Your task to perform on an android device: toggle pop-ups in chrome Image 0: 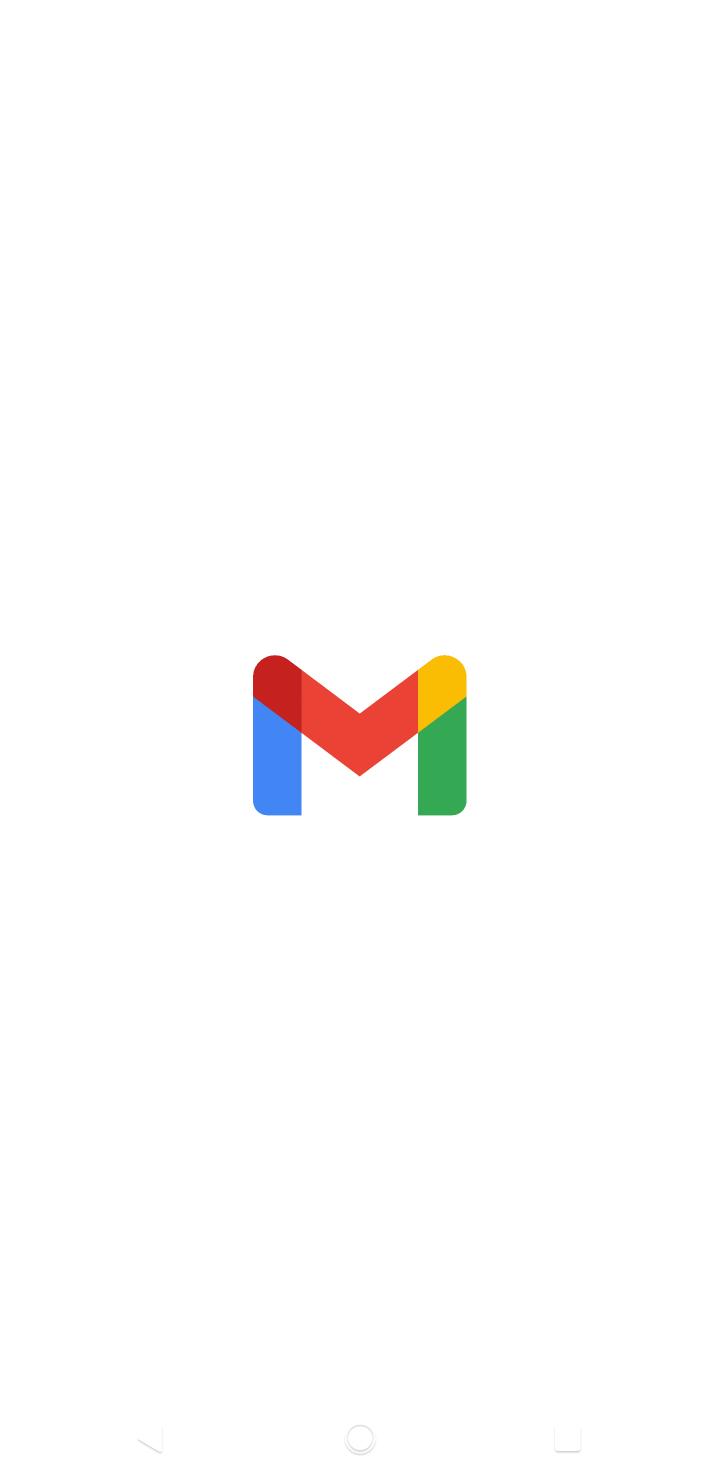
Step 0: press home button
Your task to perform on an android device: toggle pop-ups in chrome Image 1: 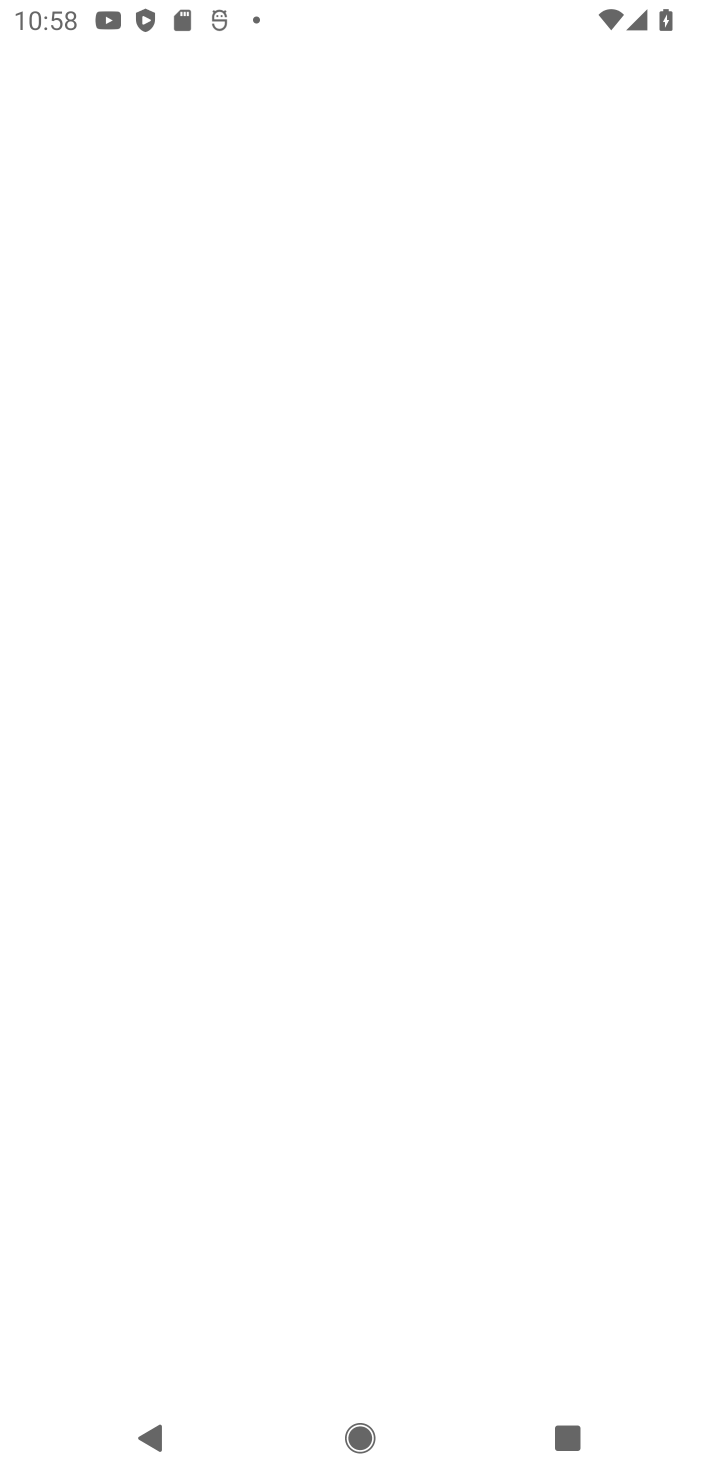
Step 1: press home button
Your task to perform on an android device: toggle pop-ups in chrome Image 2: 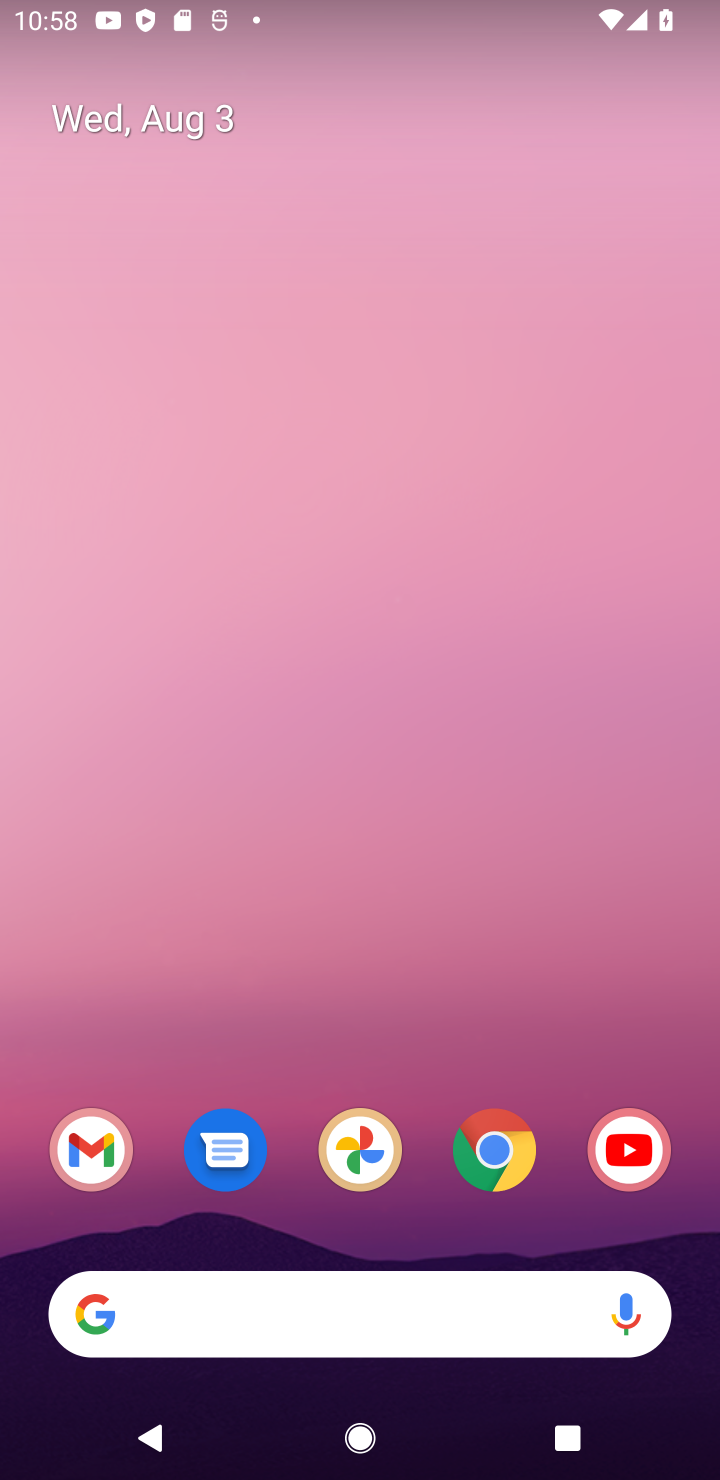
Step 2: drag from (570, 1008) to (581, 424)
Your task to perform on an android device: toggle pop-ups in chrome Image 3: 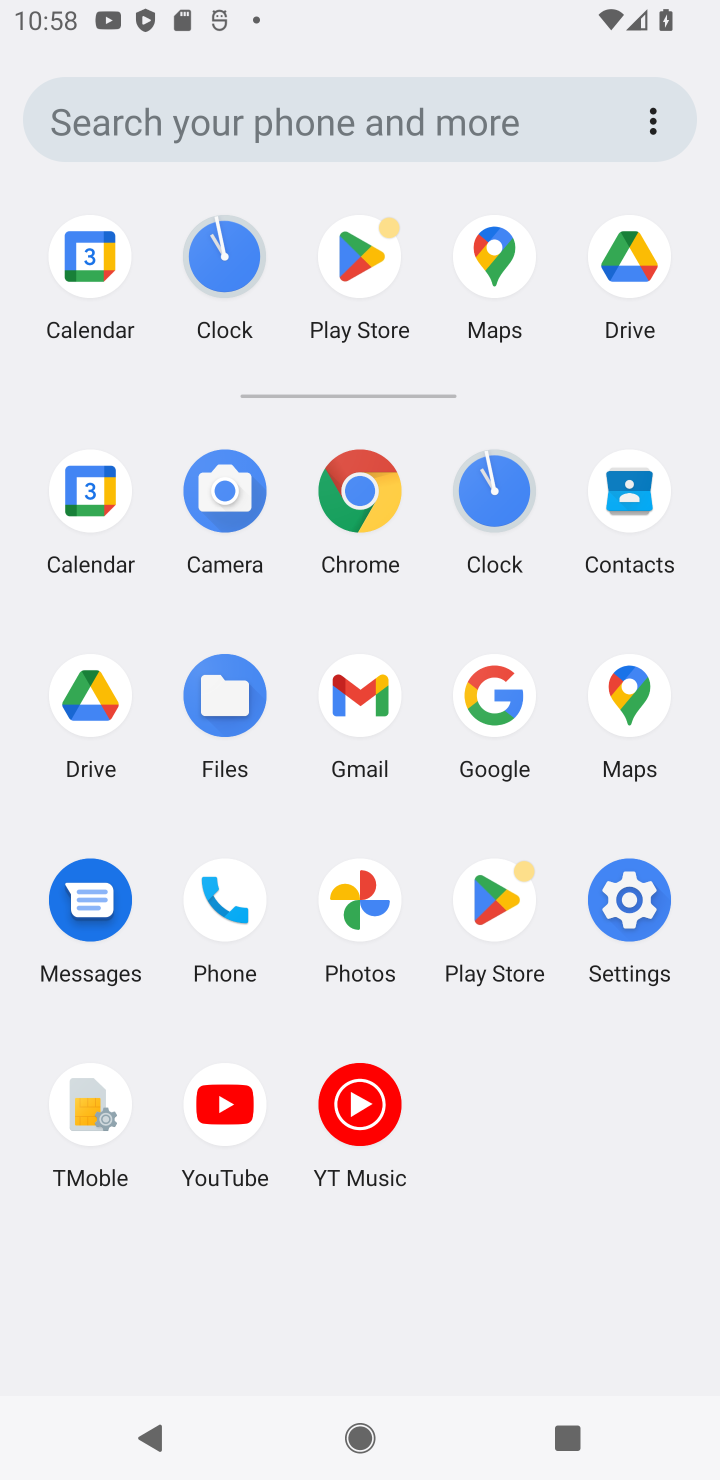
Step 3: click (364, 509)
Your task to perform on an android device: toggle pop-ups in chrome Image 4: 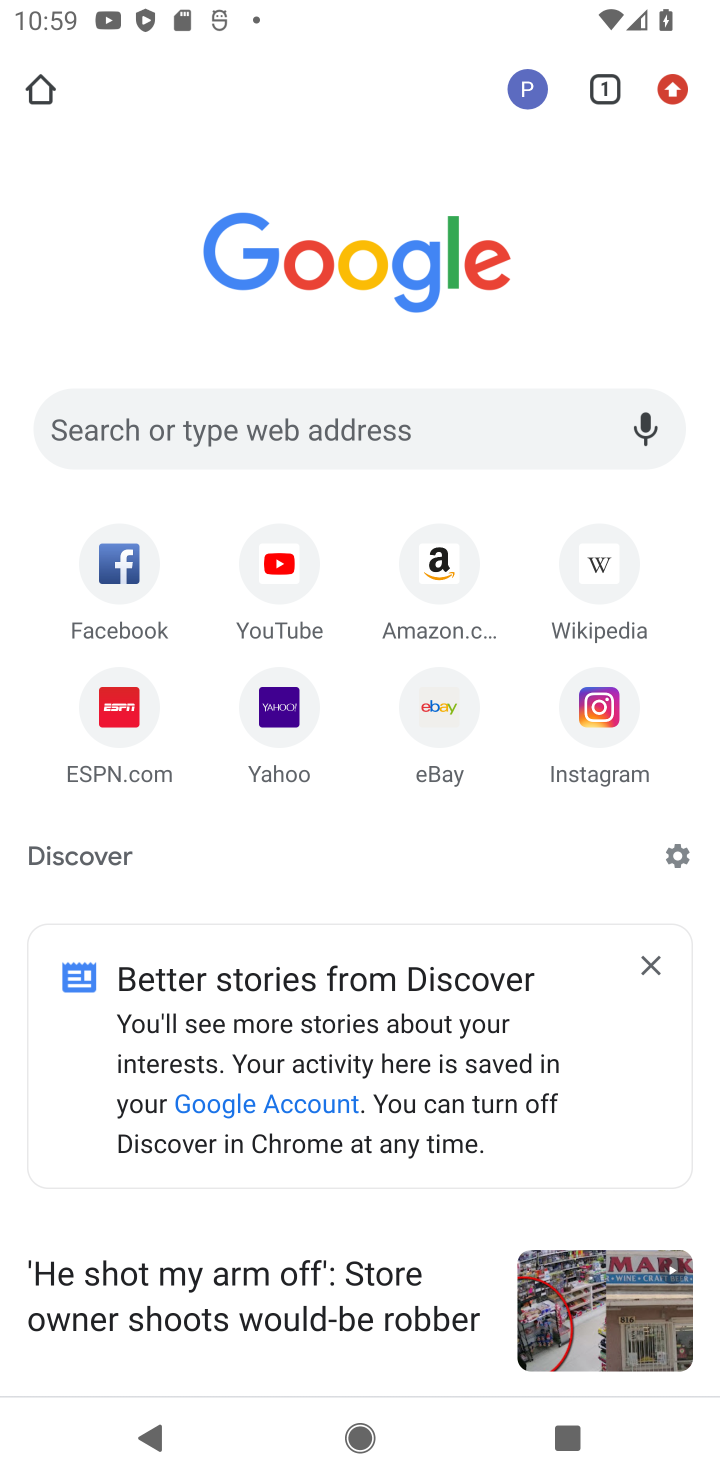
Step 4: click (668, 92)
Your task to perform on an android device: toggle pop-ups in chrome Image 5: 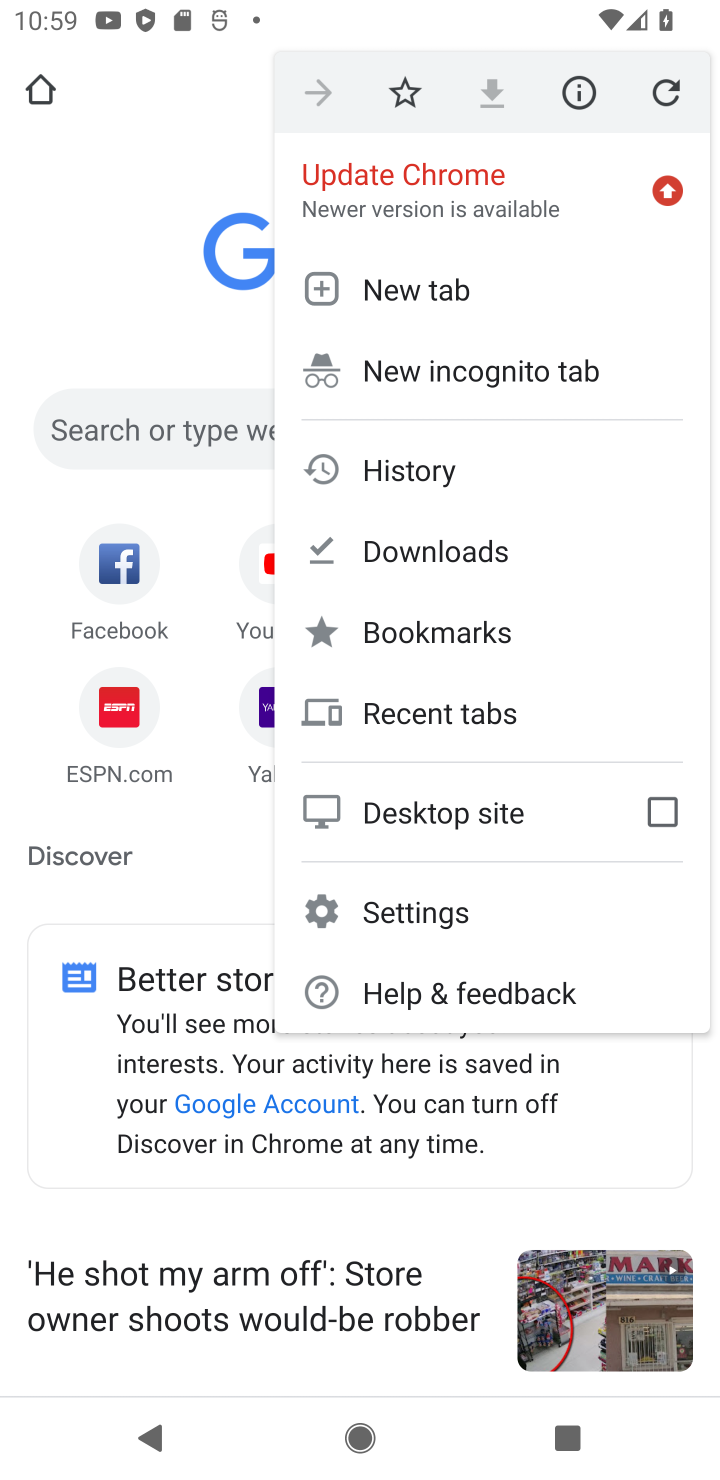
Step 5: click (466, 912)
Your task to perform on an android device: toggle pop-ups in chrome Image 6: 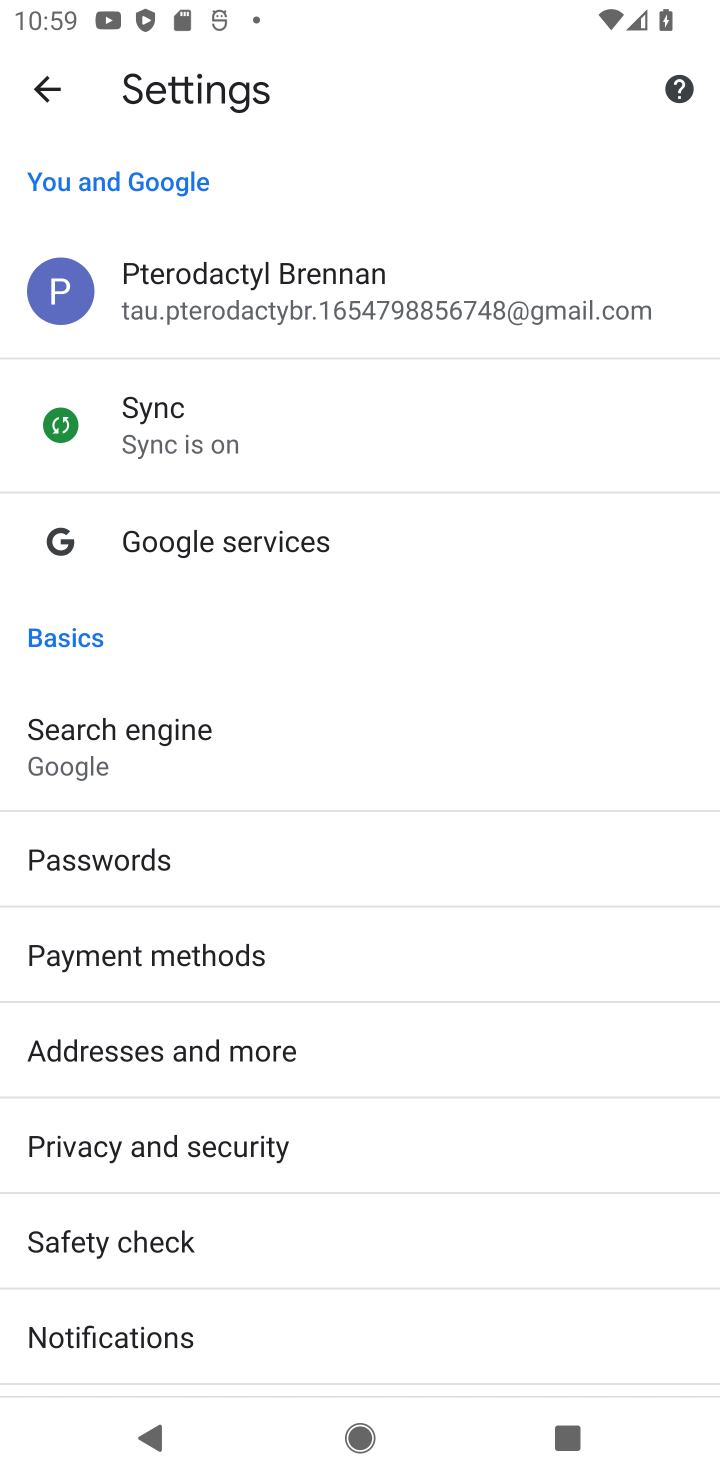
Step 6: drag from (531, 991) to (546, 706)
Your task to perform on an android device: toggle pop-ups in chrome Image 7: 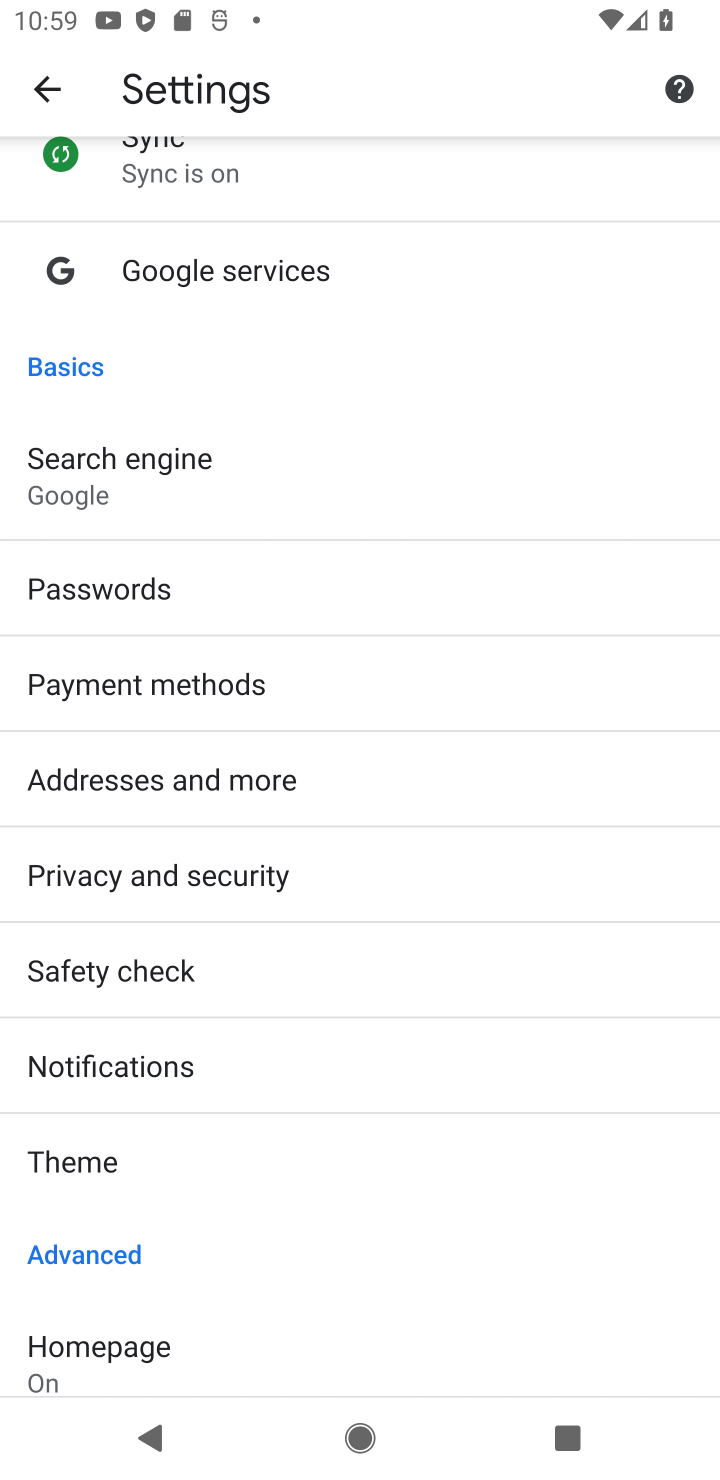
Step 7: drag from (549, 1040) to (534, 713)
Your task to perform on an android device: toggle pop-ups in chrome Image 8: 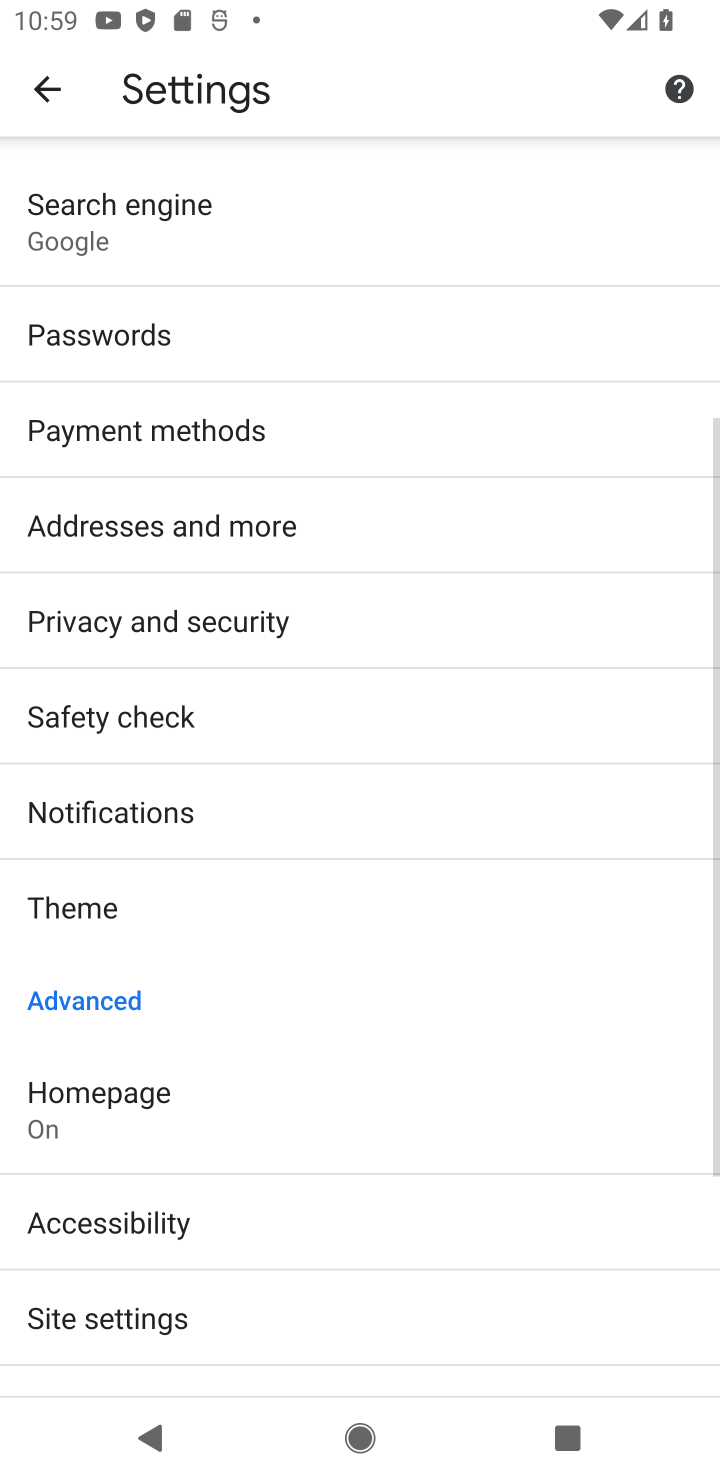
Step 8: drag from (550, 1014) to (535, 738)
Your task to perform on an android device: toggle pop-ups in chrome Image 9: 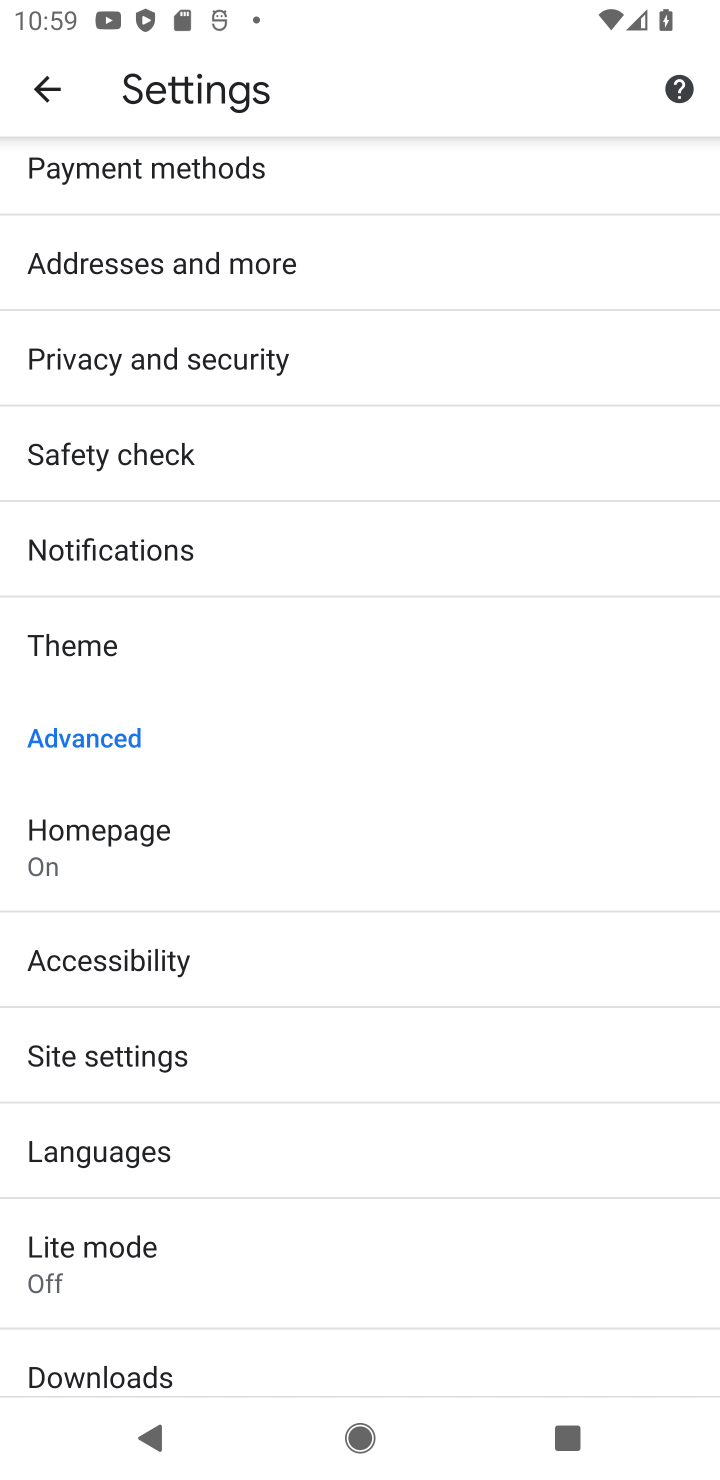
Step 9: drag from (533, 1010) to (521, 715)
Your task to perform on an android device: toggle pop-ups in chrome Image 10: 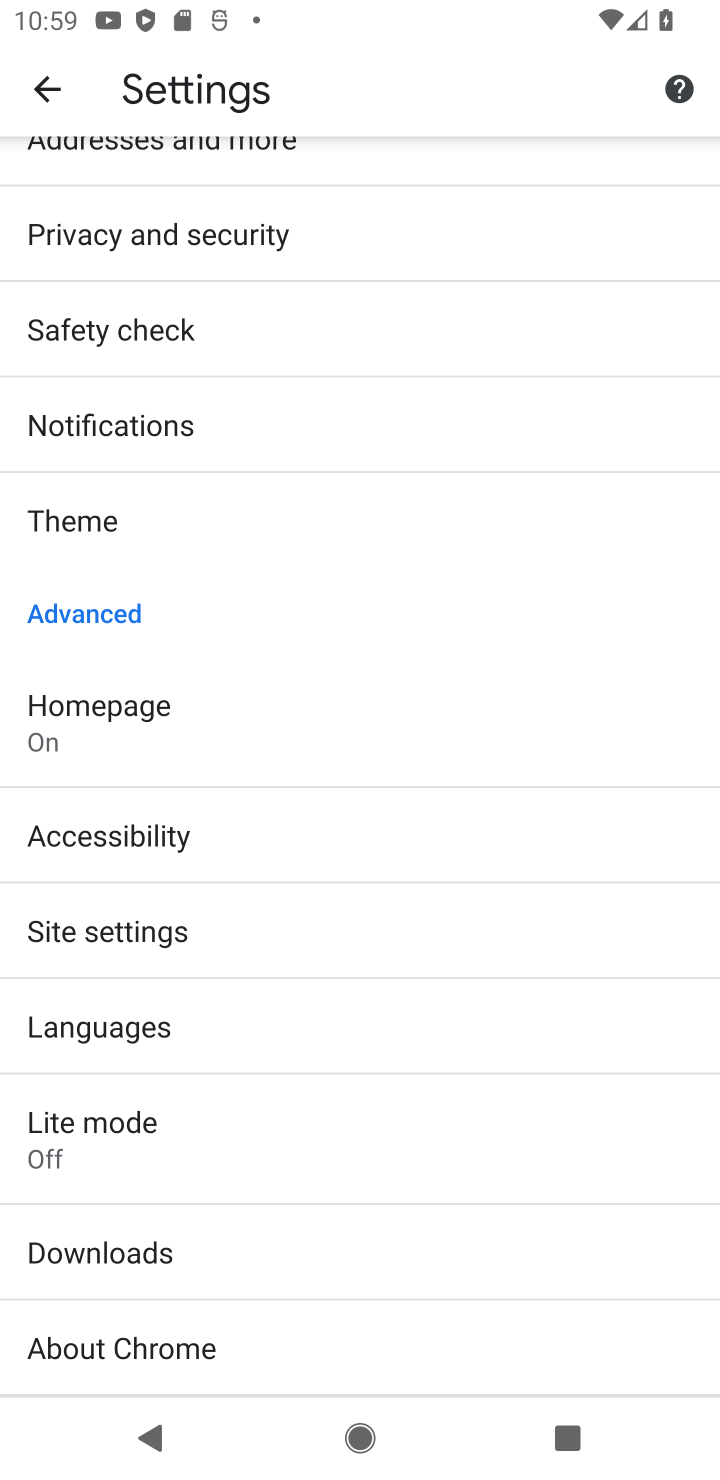
Step 10: click (521, 939)
Your task to perform on an android device: toggle pop-ups in chrome Image 11: 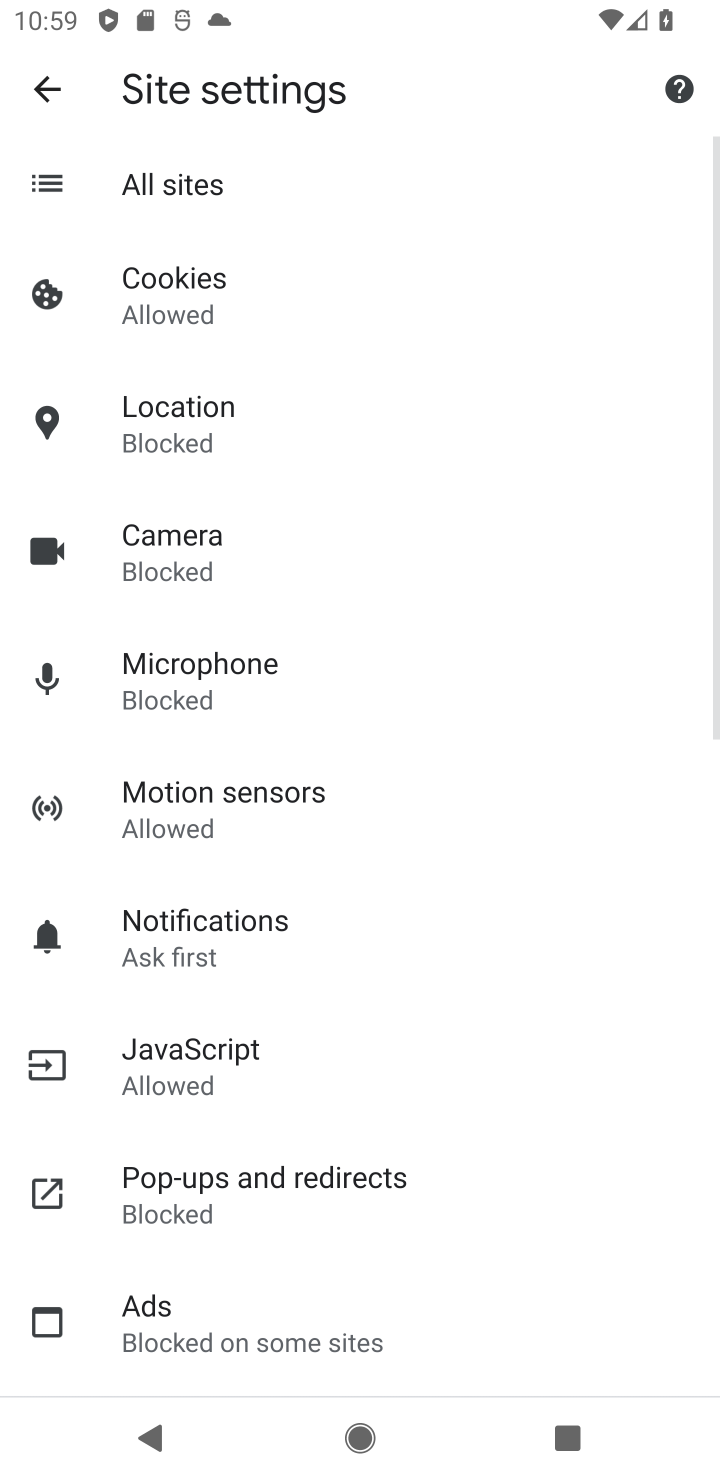
Step 11: drag from (554, 1027) to (562, 790)
Your task to perform on an android device: toggle pop-ups in chrome Image 12: 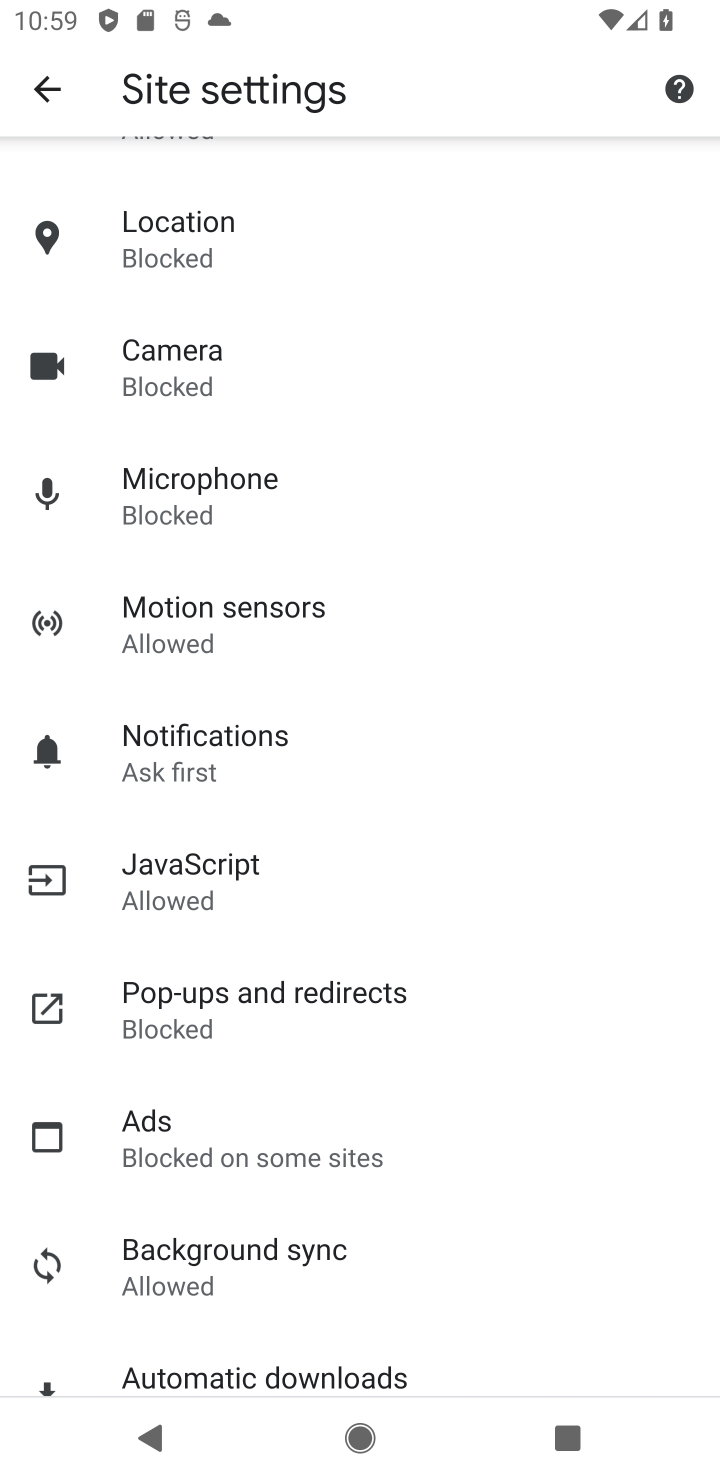
Step 12: drag from (560, 956) to (556, 766)
Your task to perform on an android device: toggle pop-ups in chrome Image 13: 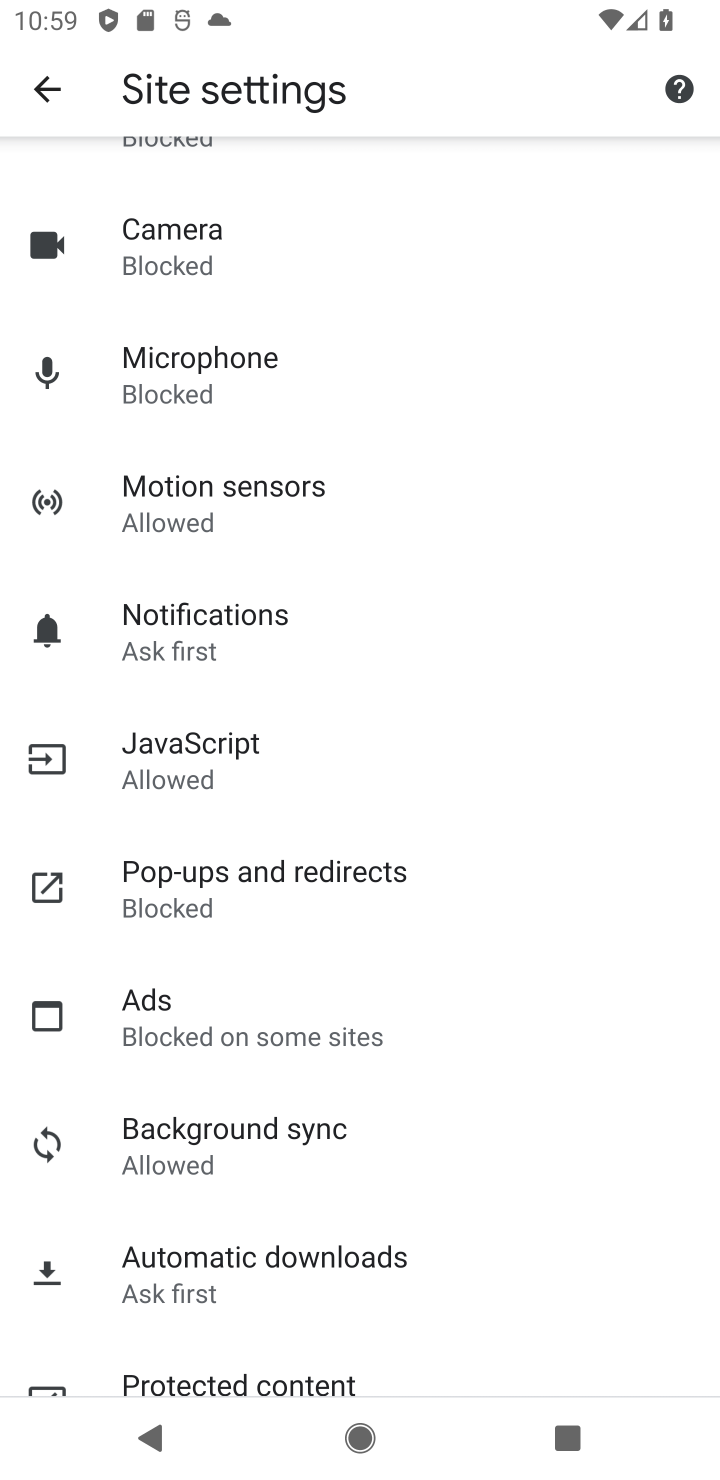
Step 13: drag from (579, 999) to (573, 778)
Your task to perform on an android device: toggle pop-ups in chrome Image 14: 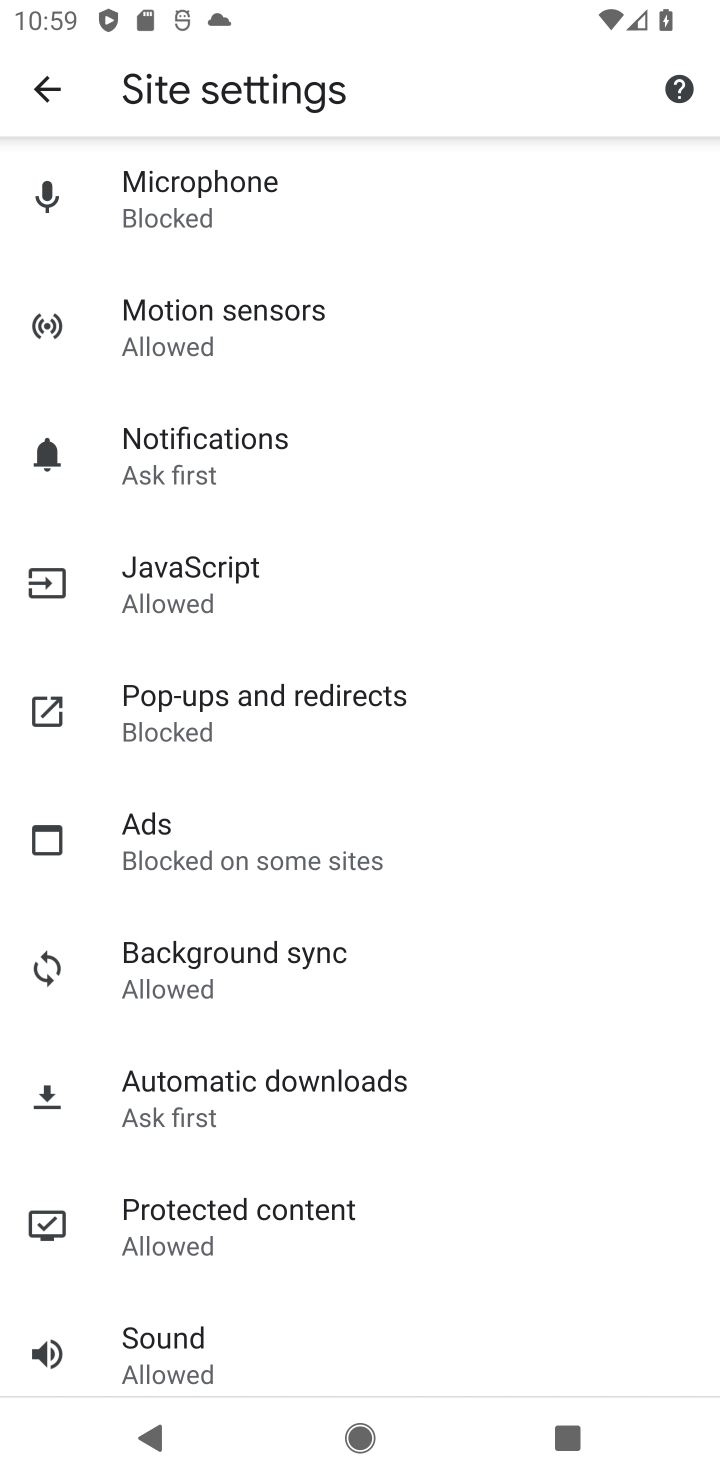
Step 14: drag from (575, 1035) to (577, 776)
Your task to perform on an android device: toggle pop-ups in chrome Image 15: 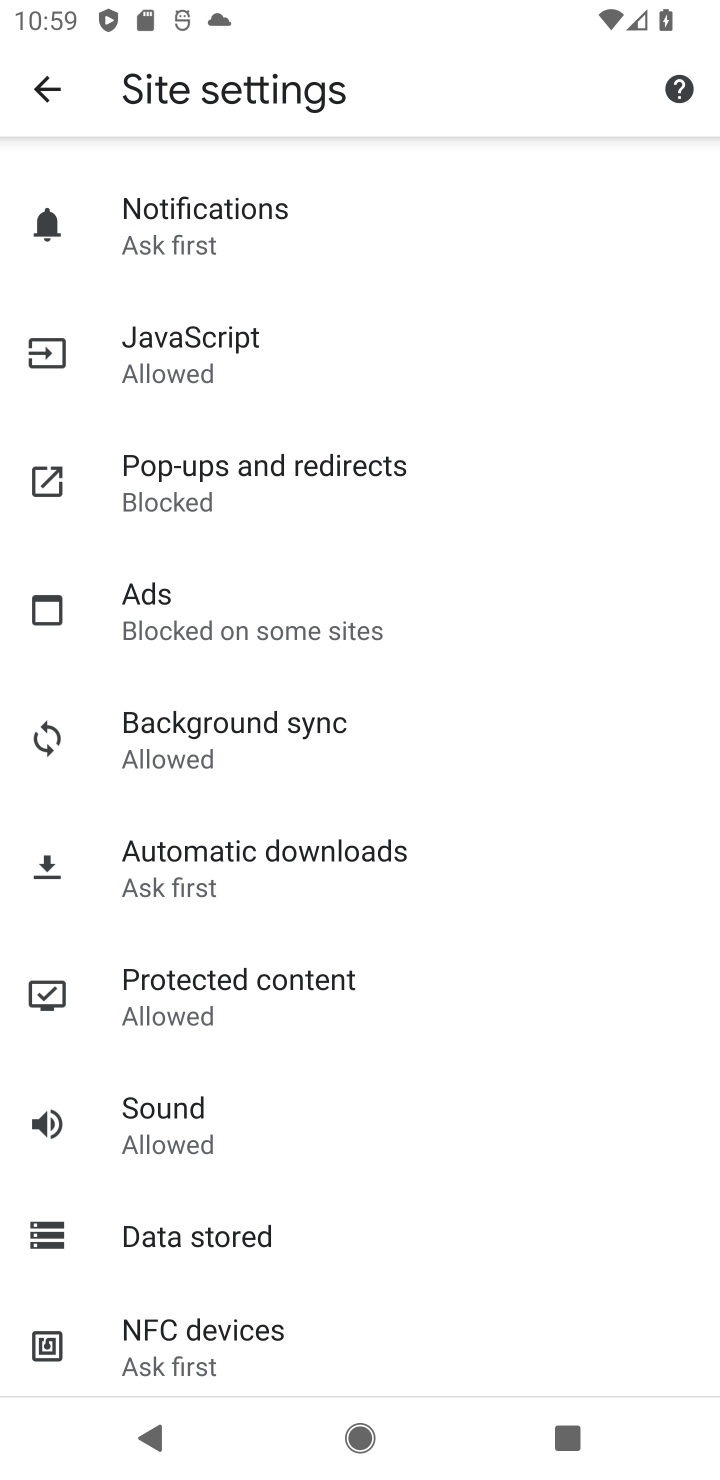
Step 15: drag from (575, 1149) to (570, 850)
Your task to perform on an android device: toggle pop-ups in chrome Image 16: 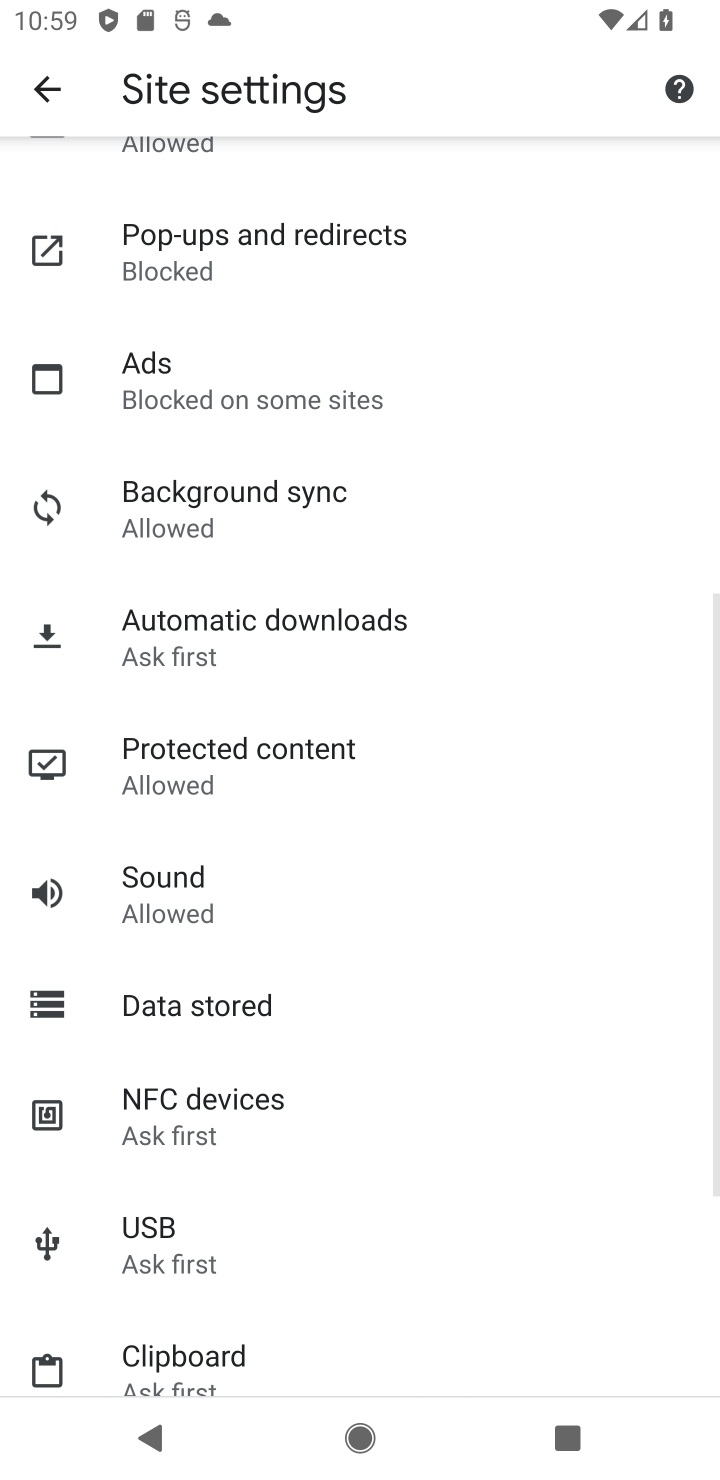
Step 16: drag from (609, 526) to (604, 765)
Your task to perform on an android device: toggle pop-ups in chrome Image 17: 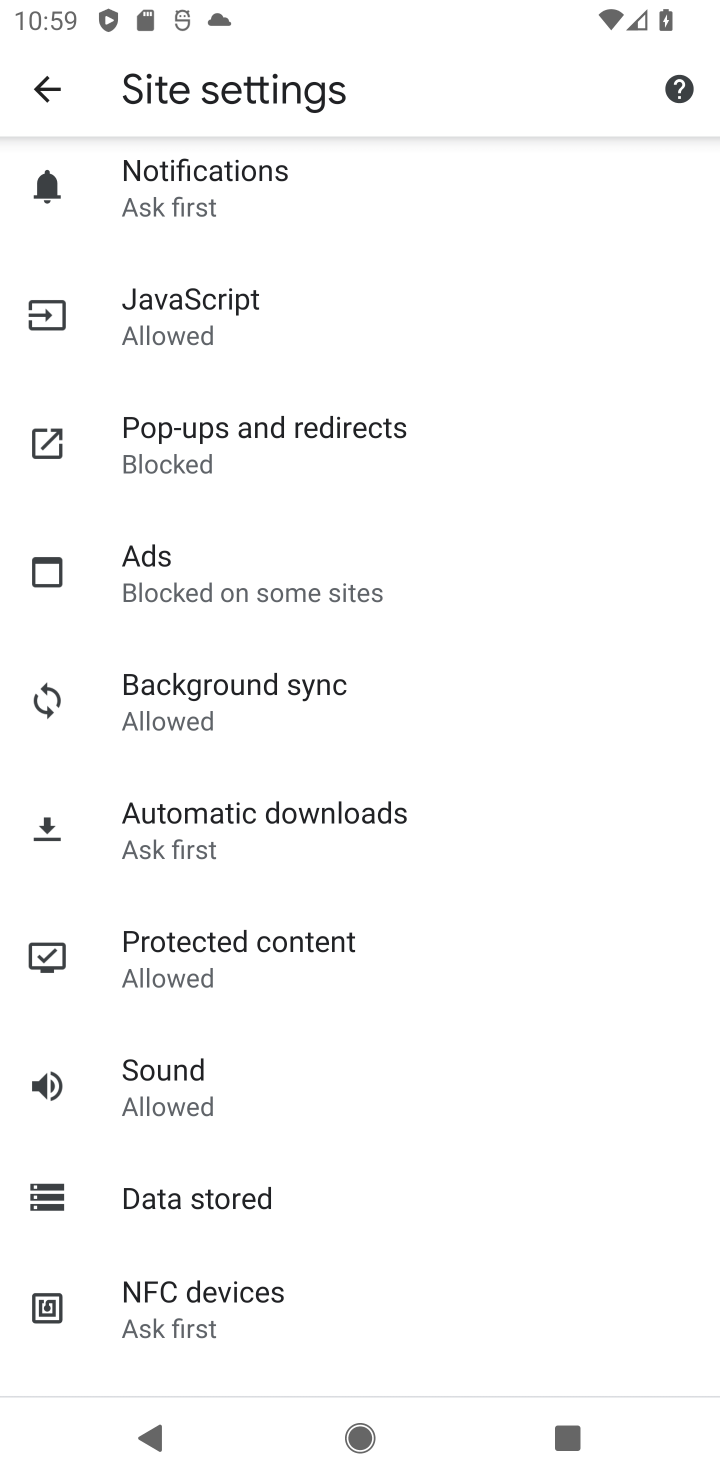
Step 17: drag from (539, 403) to (539, 785)
Your task to perform on an android device: toggle pop-ups in chrome Image 18: 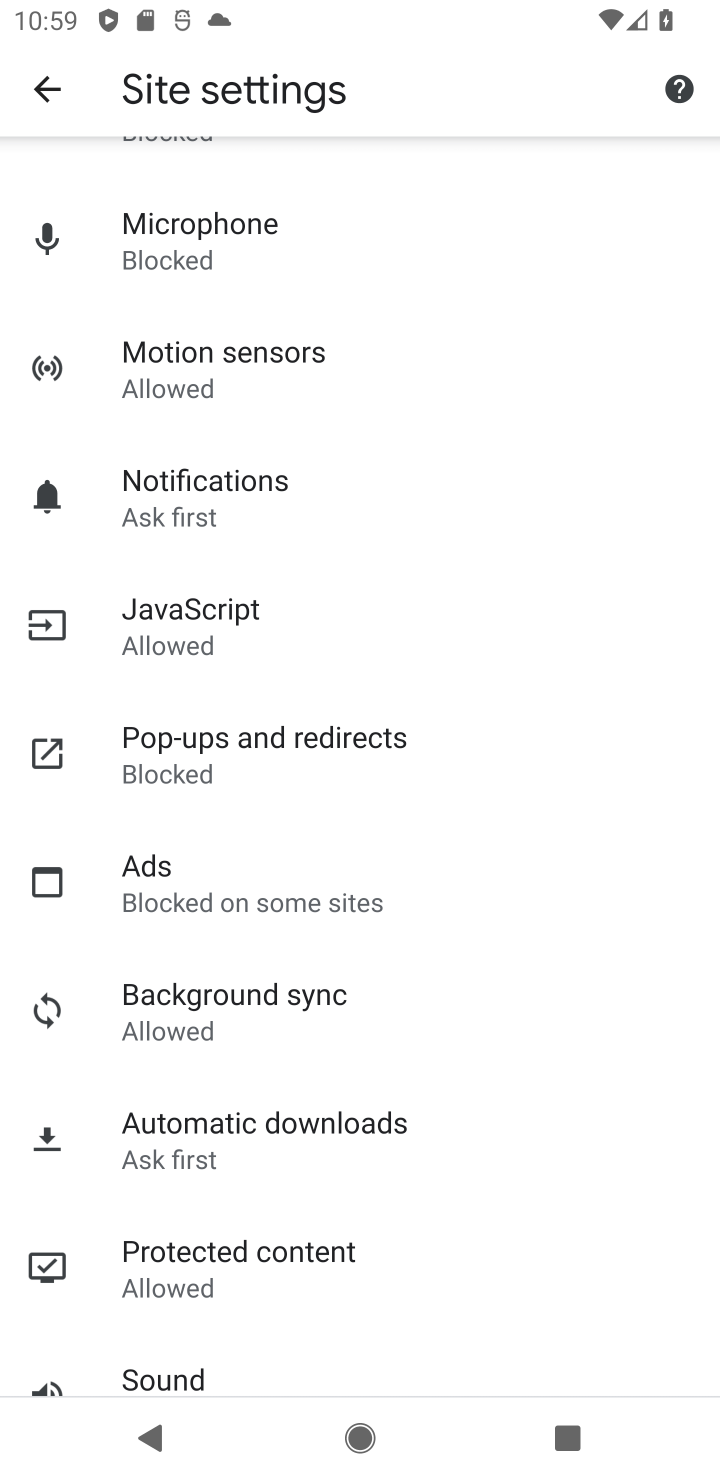
Step 18: click (519, 757)
Your task to perform on an android device: toggle pop-ups in chrome Image 19: 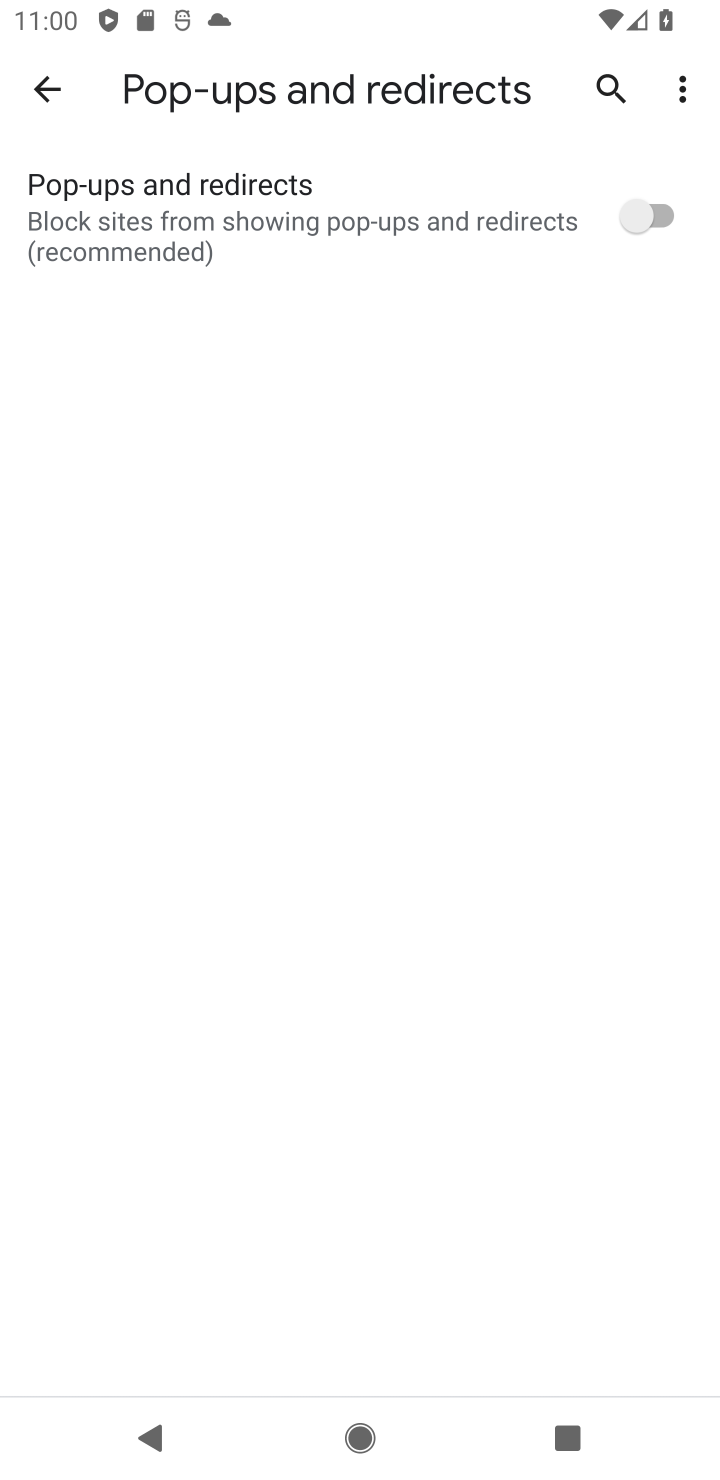
Step 19: click (641, 212)
Your task to perform on an android device: toggle pop-ups in chrome Image 20: 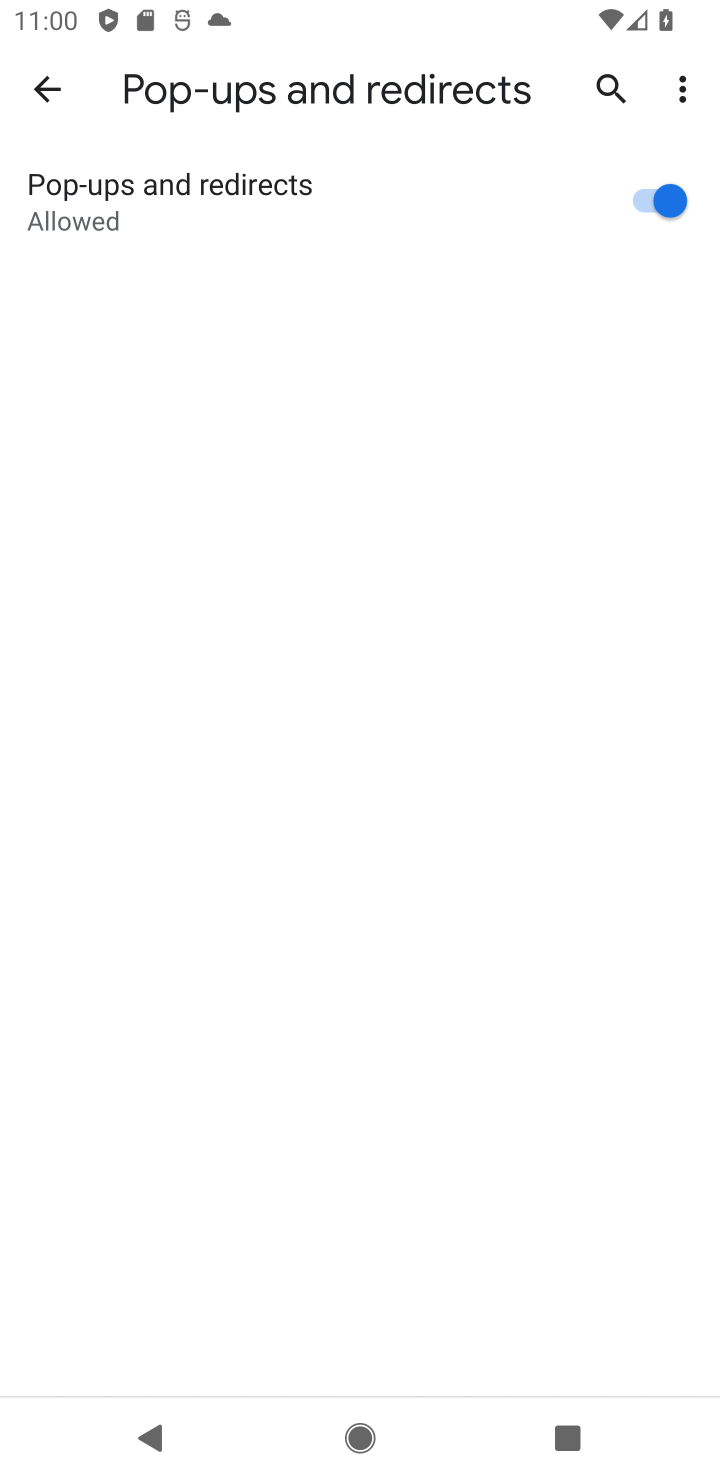
Step 20: task complete